Your task to perform on an android device: Do I have any events this weekend? Image 0: 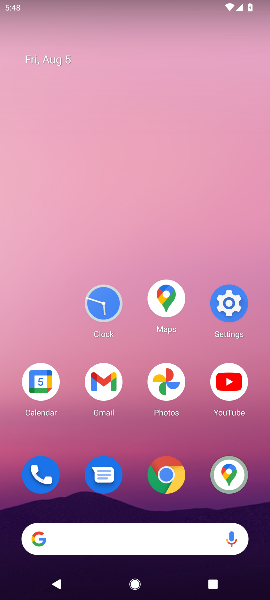
Step 0: click (32, 384)
Your task to perform on an android device: Do I have any events this weekend? Image 1: 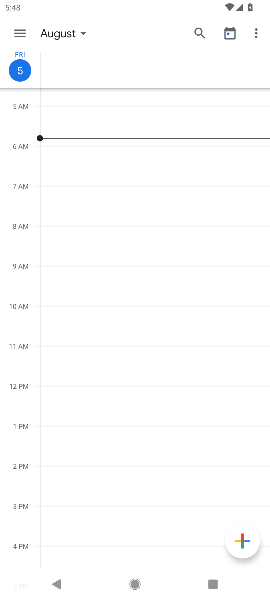
Step 1: click (80, 33)
Your task to perform on an android device: Do I have any events this weekend? Image 2: 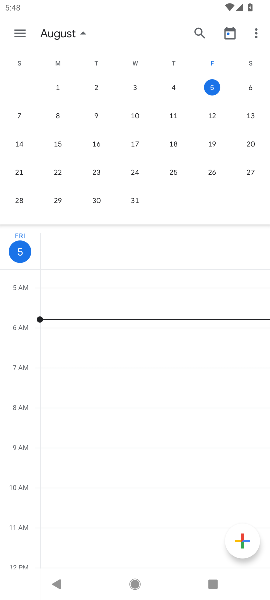
Step 2: click (214, 84)
Your task to perform on an android device: Do I have any events this weekend? Image 3: 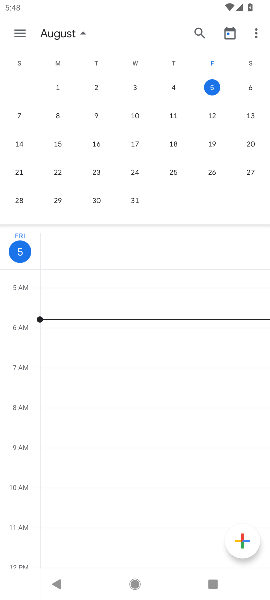
Step 3: click (18, 35)
Your task to perform on an android device: Do I have any events this weekend? Image 4: 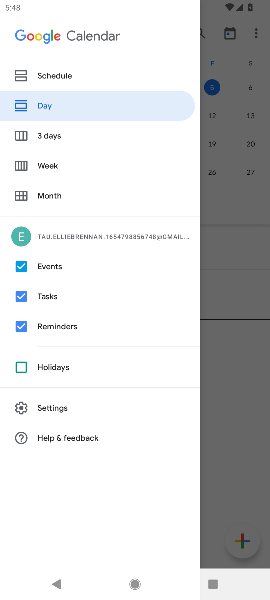
Step 4: click (49, 161)
Your task to perform on an android device: Do I have any events this weekend? Image 5: 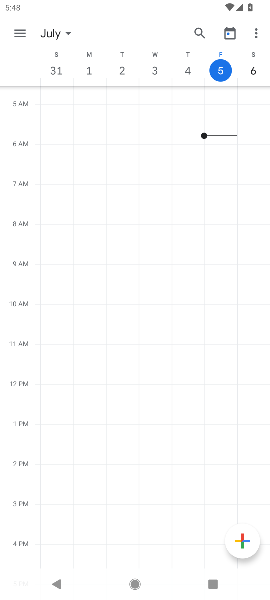
Step 5: click (24, 35)
Your task to perform on an android device: Do I have any events this weekend? Image 6: 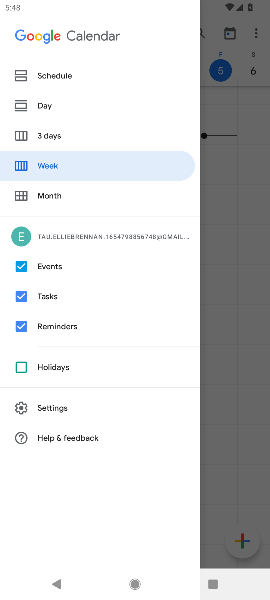
Step 6: click (51, 76)
Your task to perform on an android device: Do I have any events this weekend? Image 7: 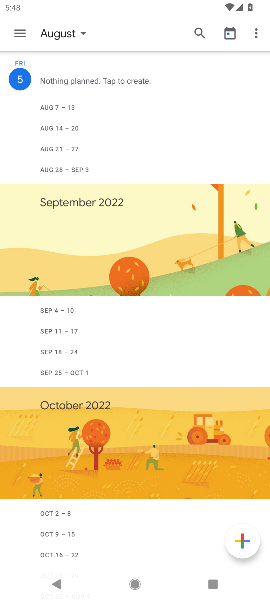
Step 7: task complete